Your task to perform on an android device: delete a single message in the gmail app Image 0: 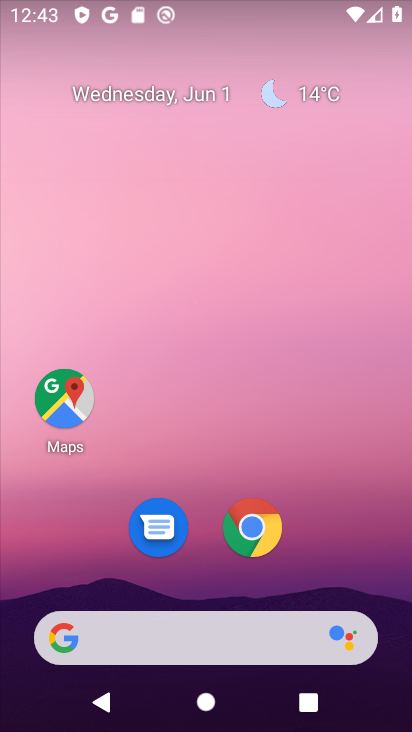
Step 0: drag from (230, 615) to (232, 133)
Your task to perform on an android device: delete a single message in the gmail app Image 1: 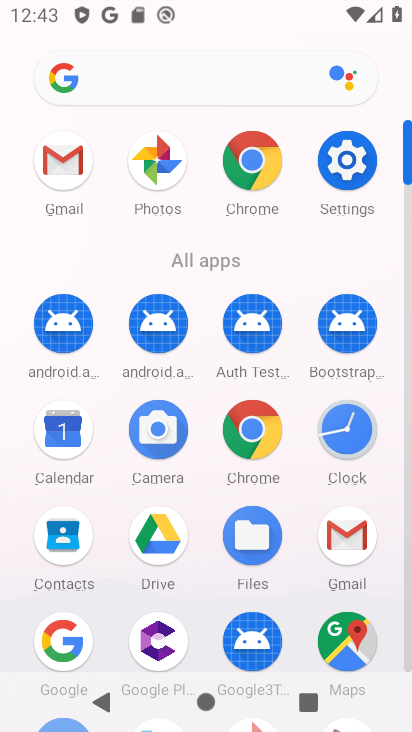
Step 1: click (347, 553)
Your task to perform on an android device: delete a single message in the gmail app Image 2: 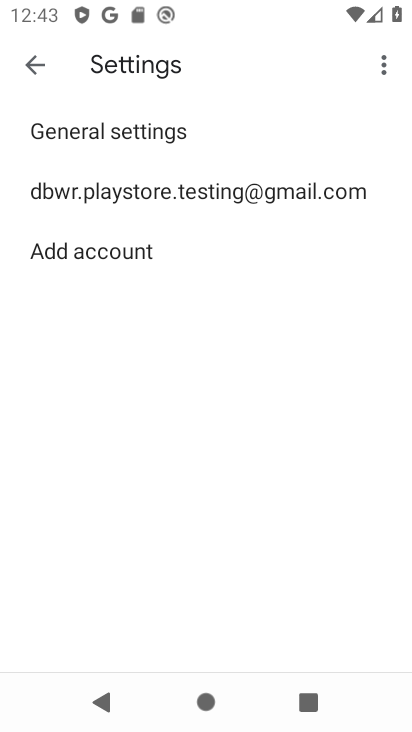
Step 2: click (32, 77)
Your task to perform on an android device: delete a single message in the gmail app Image 3: 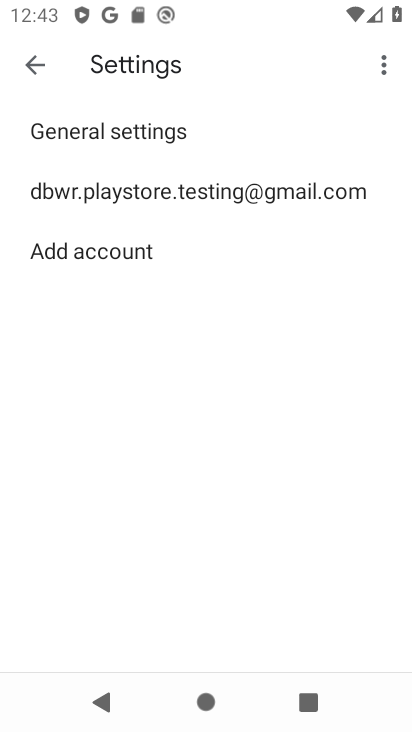
Step 3: click (40, 74)
Your task to perform on an android device: delete a single message in the gmail app Image 4: 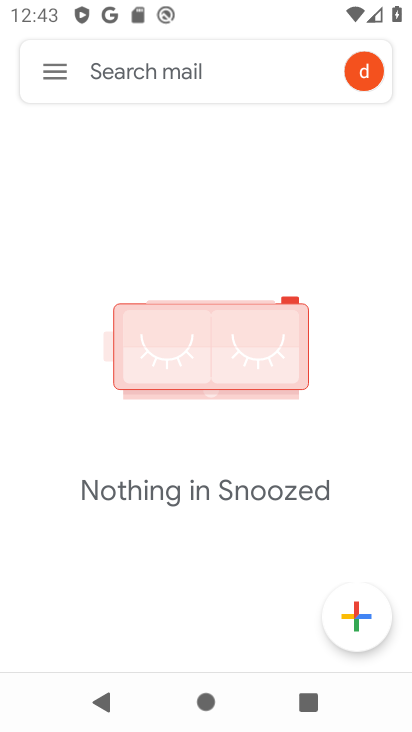
Step 4: click (55, 64)
Your task to perform on an android device: delete a single message in the gmail app Image 5: 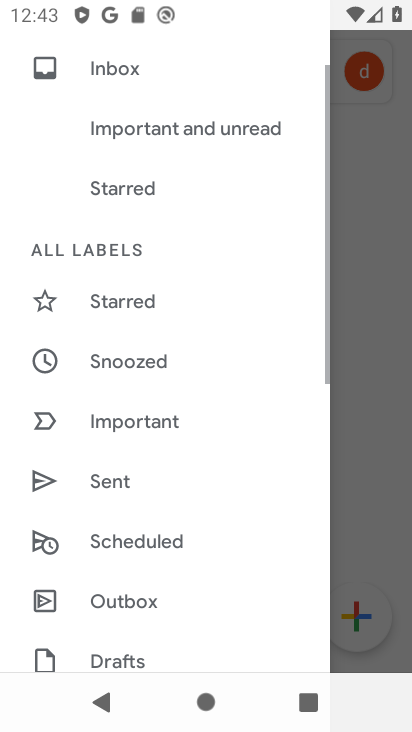
Step 5: drag from (161, 578) to (192, 217)
Your task to perform on an android device: delete a single message in the gmail app Image 6: 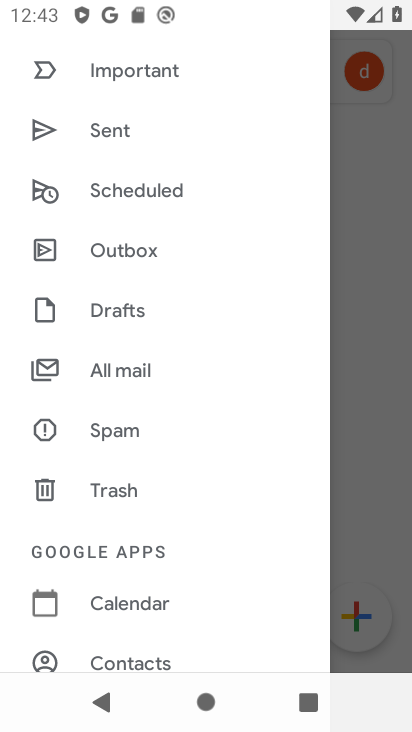
Step 6: click (138, 364)
Your task to perform on an android device: delete a single message in the gmail app Image 7: 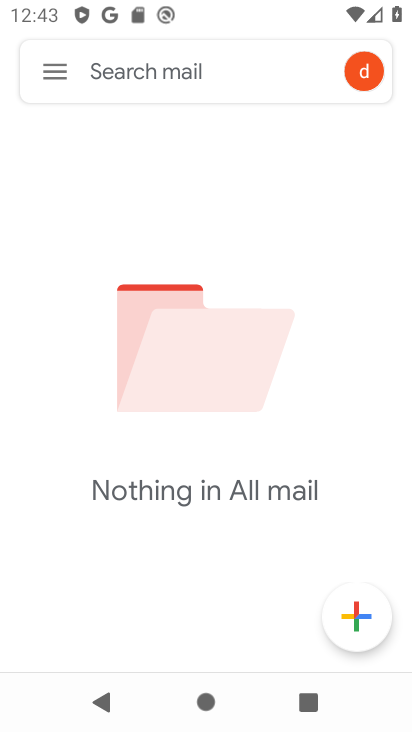
Step 7: task complete